Your task to perform on an android device: What's on my calendar today? Image 0: 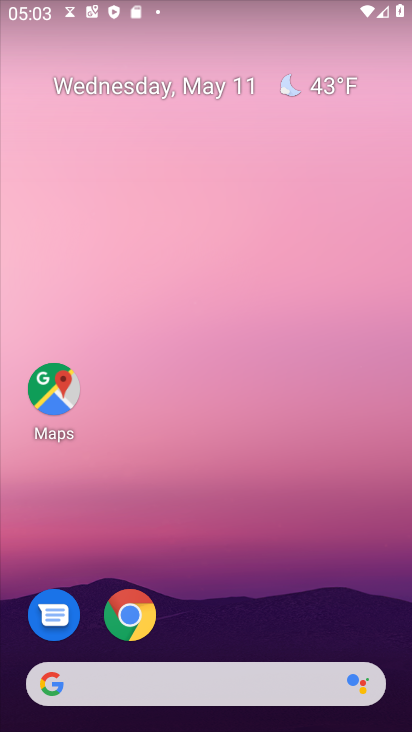
Step 0: drag from (249, 557) to (218, 43)
Your task to perform on an android device: What's on my calendar today? Image 1: 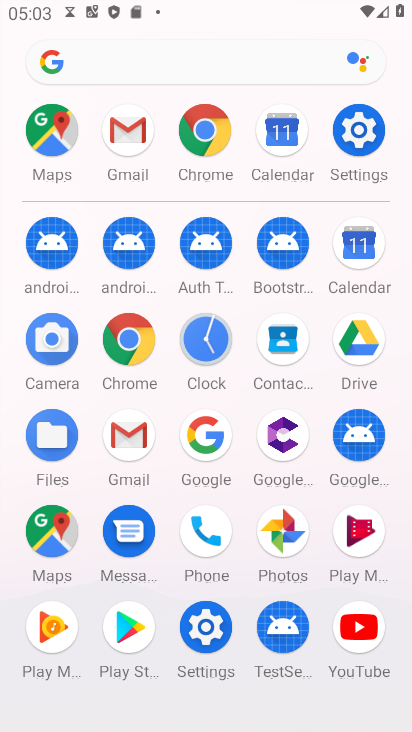
Step 1: drag from (9, 521) to (17, 300)
Your task to perform on an android device: What's on my calendar today? Image 2: 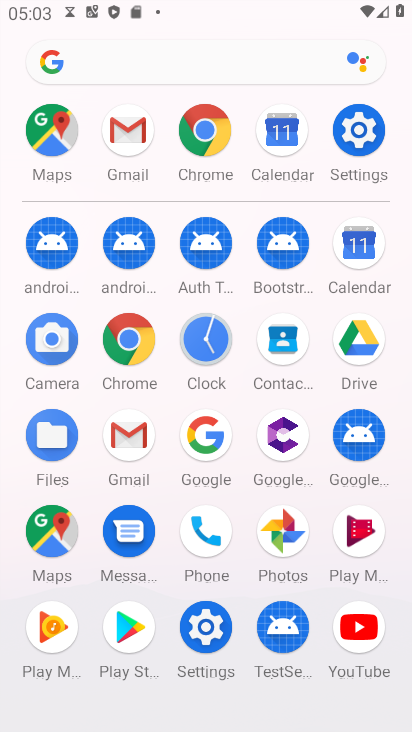
Step 2: click (356, 238)
Your task to perform on an android device: What's on my calendar today? Image 3: 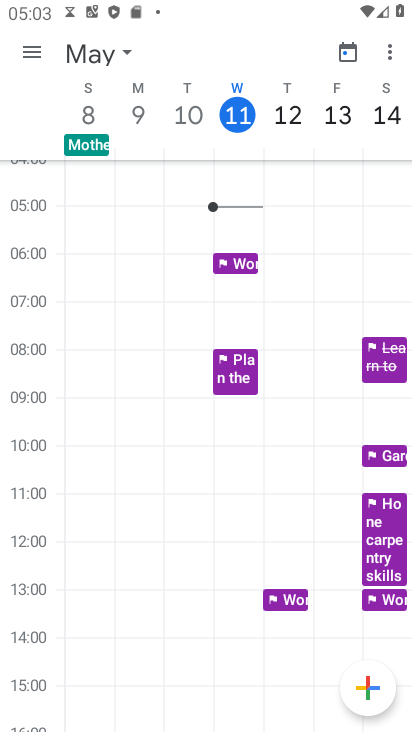
Step 3: click (342, 54)
Your task to perform on an android device: What's on my calendar today? Image 4: 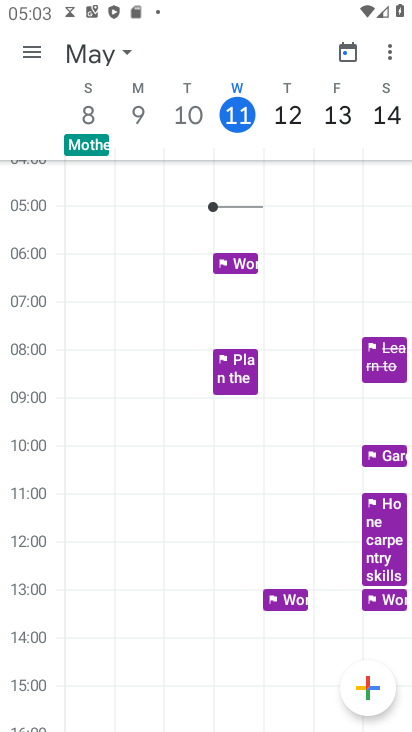
Step 4: task complete